Your task to perform on an android device: manage bookmarks in the chrome app Image 0: 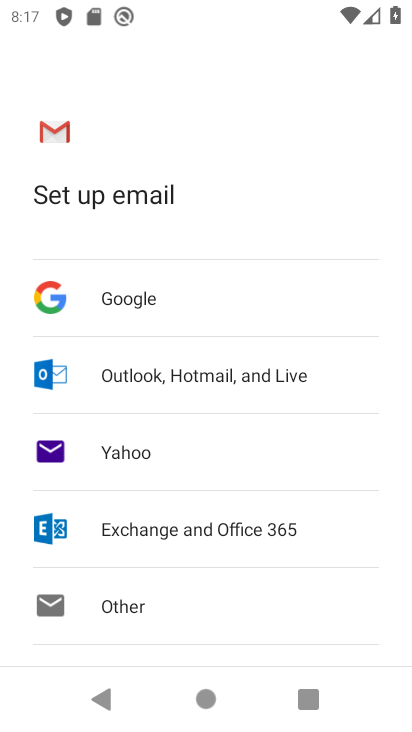
Step 0: press home button
Your task to perform on an android device: manage bookmarks in the chrome app Image 1: 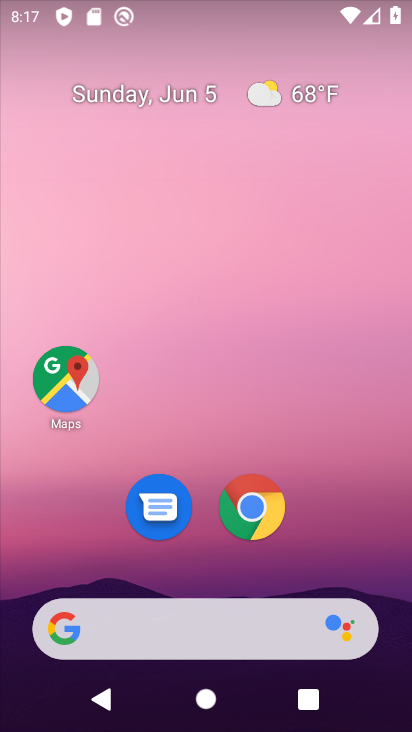
Step 1: click (253, 514)
Your task to perform on an android device: manage bookmarks in the chrome app Image 2: 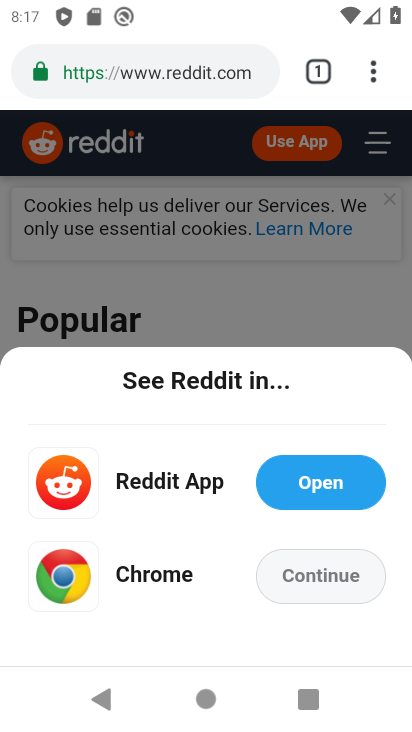
Step 2: click (375, 77)
Your task to perform on an android device: manage bookmarks in the chrome app Image 3: 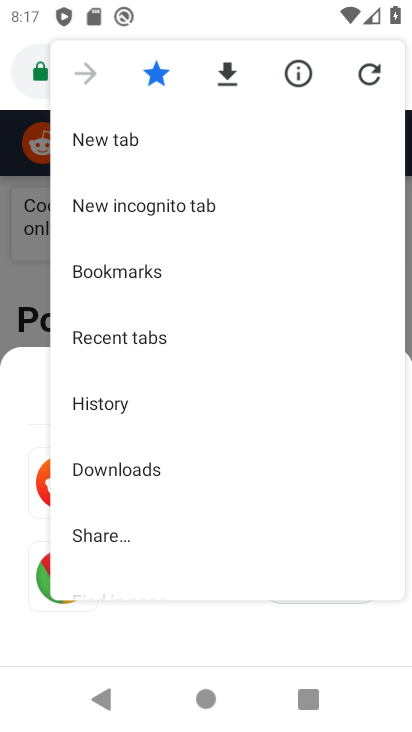
Step 3: click (130, 272)
Your task to perform on an android device: manage bookmarks in the chrome app Image 4: 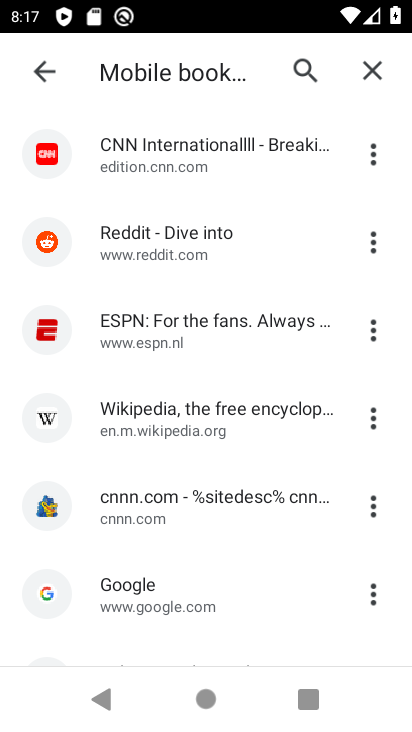
Step 4: click (376, 341)
Your task to perform on an android device: manage bookmarks in the chrome app Image 5: 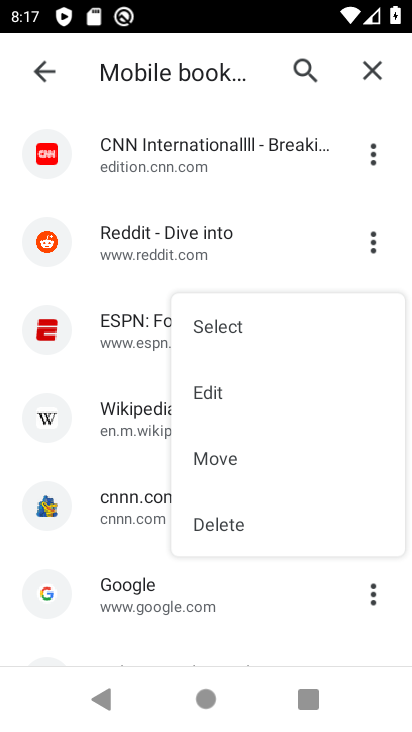
Step 5: click (211, 394)
Your task to perform on an android device: manage bookmarks in the chrome app Image 6: 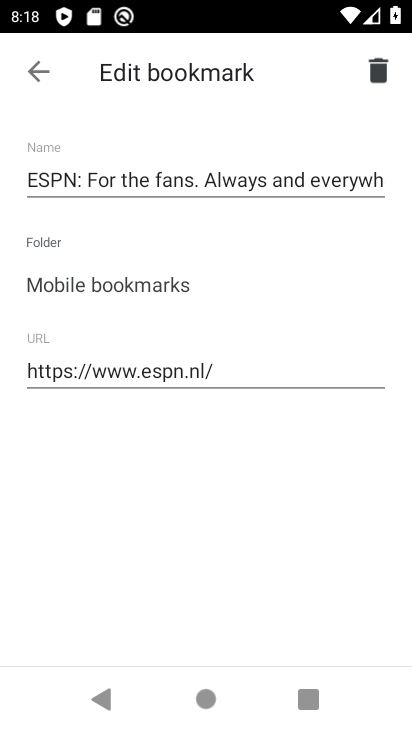
Step 6: click (262, 181)
Your task to perform on an android device: manage bookmarks in the chrome app Image 7: 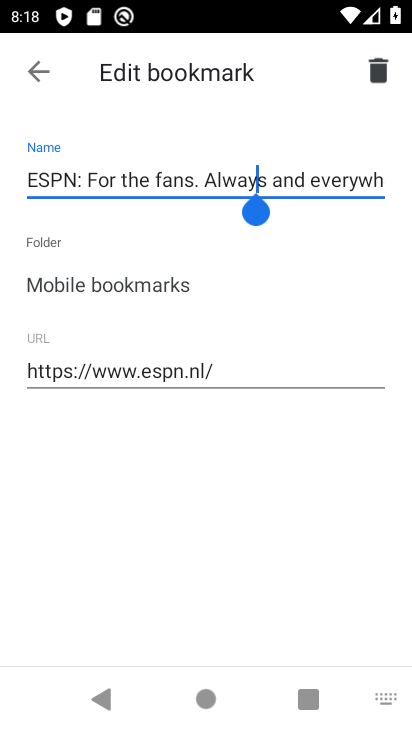
Step 7: click (262, 181)
Your task to perform on an android device: manage bookmarks in the chrome app Image 8: 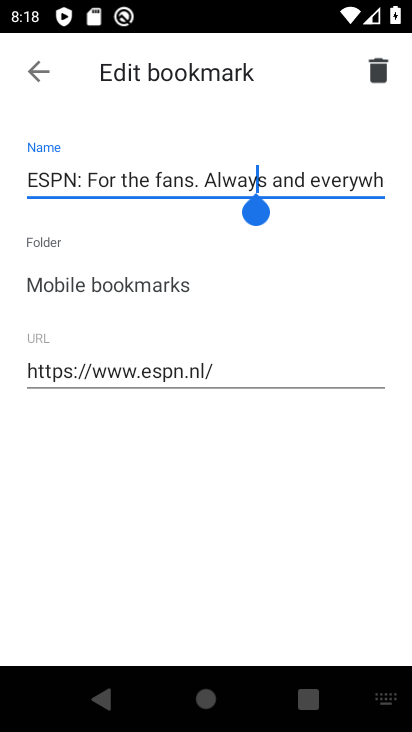
Step 8: click (262, 181)
Your task to perform on an android device: manage bookmarks in the chrome app Image 9: 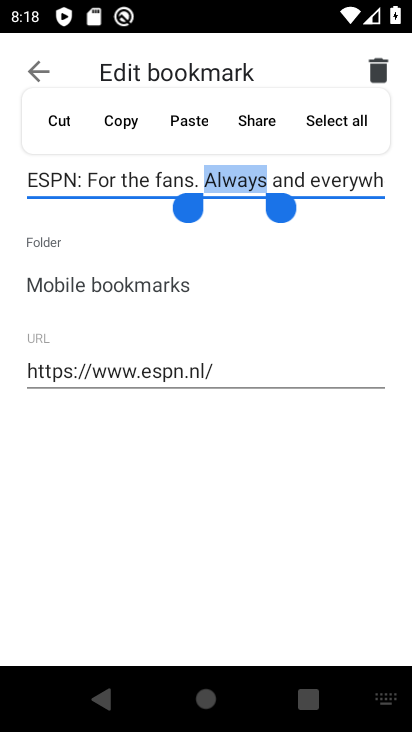
Step 9: click (60, 115)
Your task to perform on an android device: manage bookmarks in the chrome app Image 10: 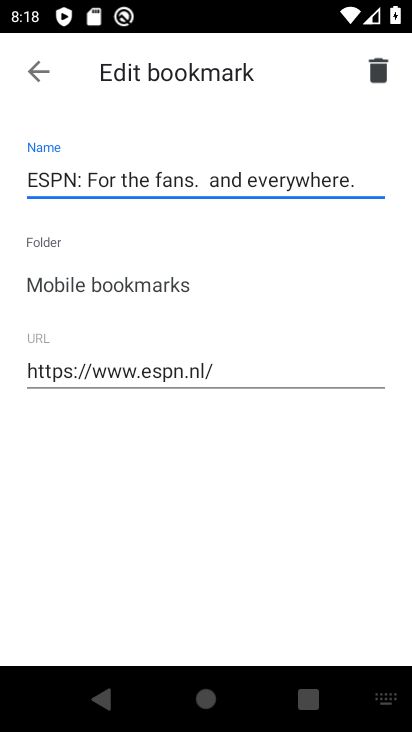
Step 10: click (40, 65)
Your task to perform on an android device: manage bookmarks in the chrome app Image 11: 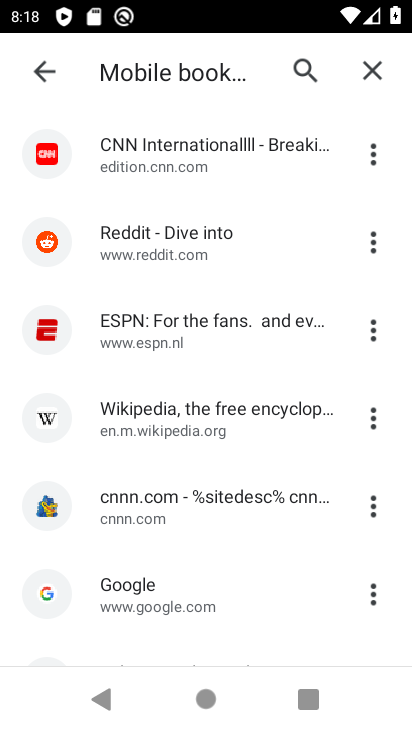
Step 11: task complete